Your task to perform on an android device: What's the weather? Image 0: 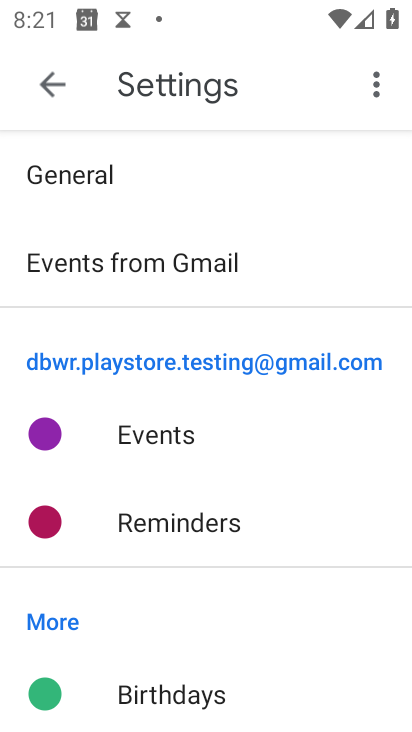
Step 0: press home button
Your task to perform on an android device: What's the weather? Image 1: 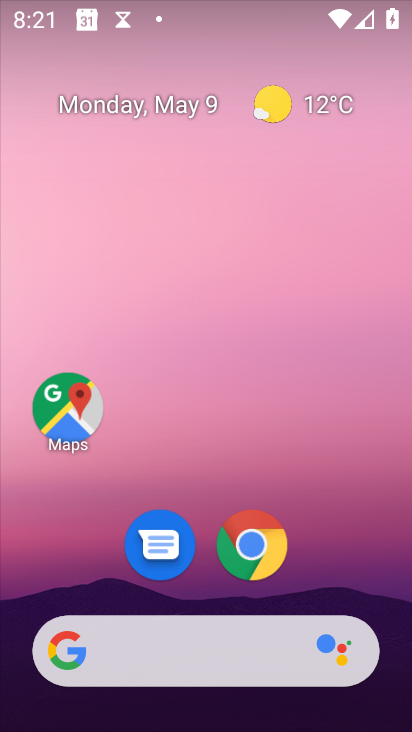
Step 1: click (272, 99)
Your task to perform on an android device: What's the weather? Image 2: 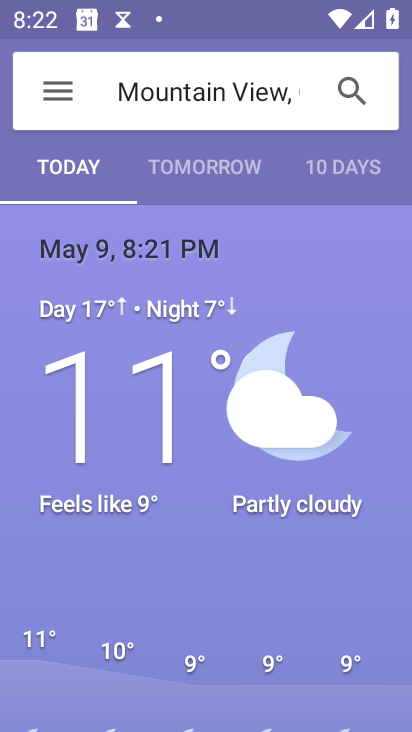
Step 2: task complete